Your task to perform on an android device: Go to privacy settings Image 0: 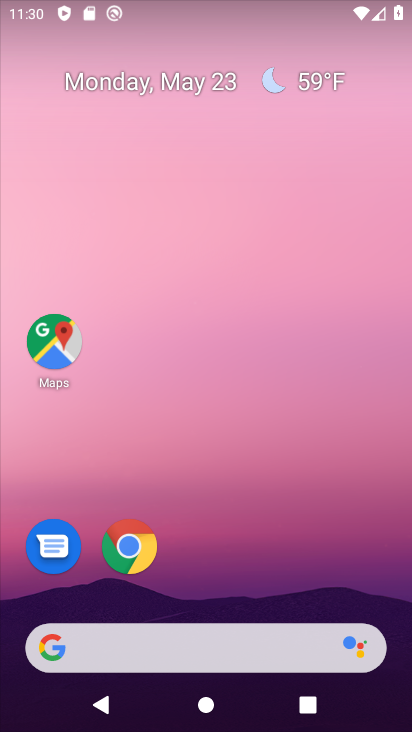
Step 0: drag from (218, 597) to (365, 14)
Your task to perform on an android device: Go to privacy settings Image 1: 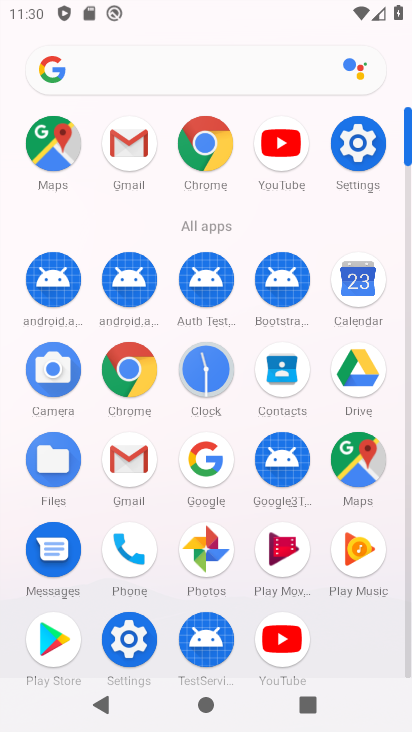
Step 1: click (377, 149)
Your task to perform on an android device: Go to privacy settings Image 2: 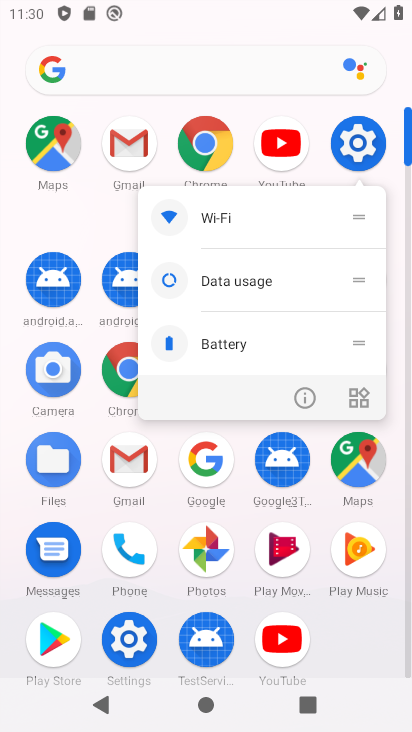
Step 2: click (306, 403)
Your task to perform on an android device: Go to privacy settings Image 3: 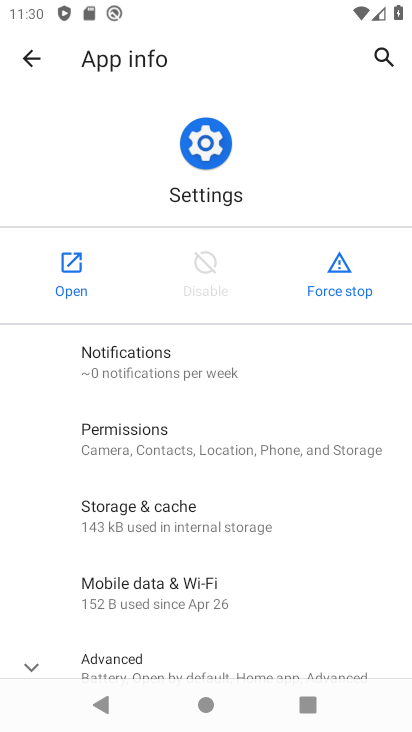
Step 3: click (56, 286)
Your task to perform on an android device: Go to privacy settings Image 4: 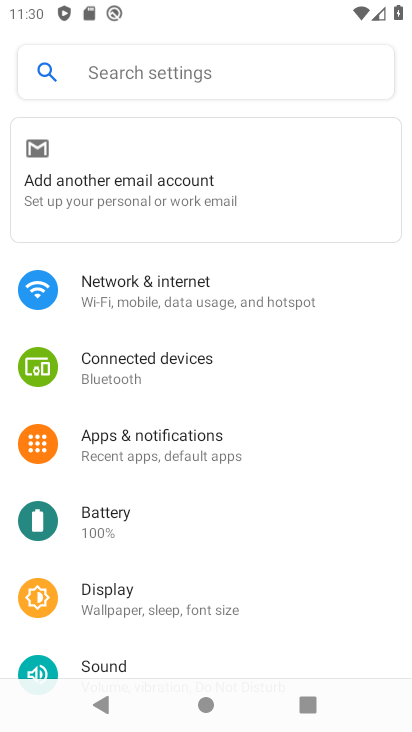
Step 4: drag from (179, 531) to (276, 66)
Your task to perform on an android device: Go to privacy settings Image 5: 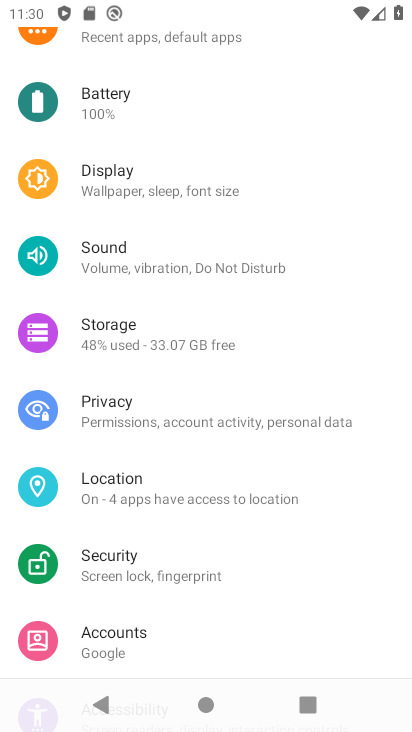
Step 5: click (129, 401)
Your task to perform on an android device: Go to privacy settings Image 6: 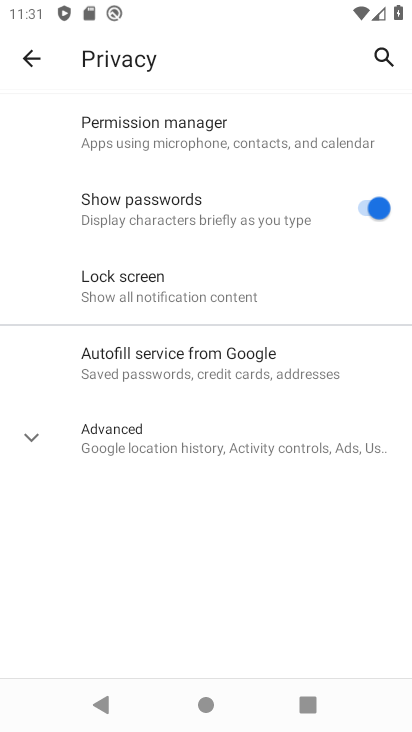
Step 6: task complete